Your task to perform on an android device: Open settings on Google Maps Image 0: 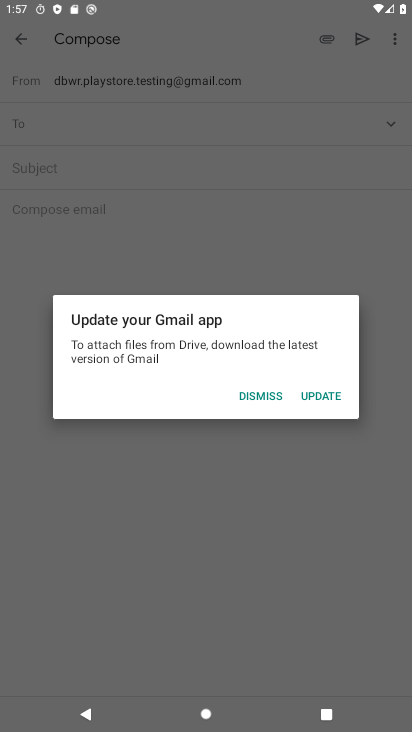
Step 0: press home button
Your task to perform on an android device: Open settings on Google Maps Image 1: 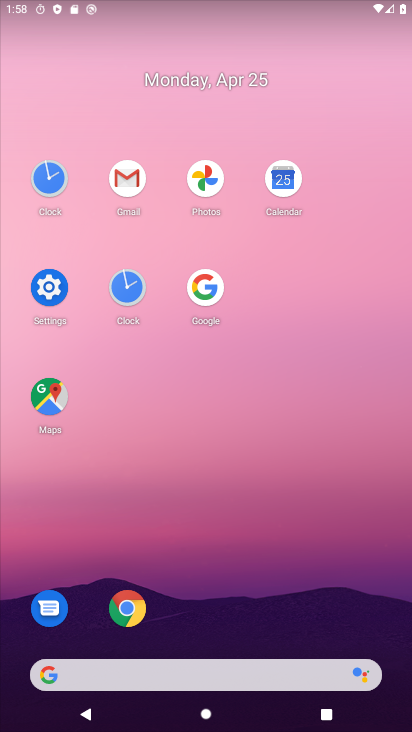
Step 1: click (46, 394)
Your task to perform on an android device: Open settings on Google Maps Image 2: 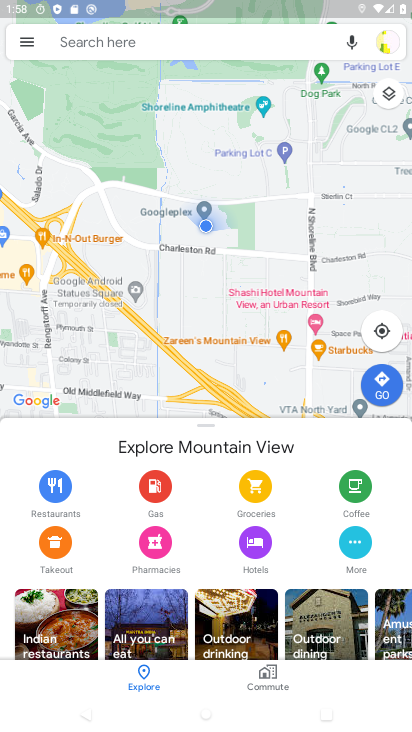
Step 2: click (35, 42)
Your task to perform on an android device: Open settings on Google Maps Image 3: 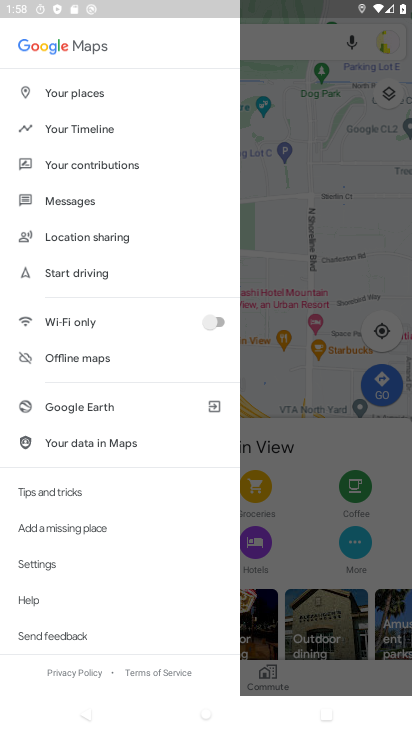
Step 3: click (69, 561)
Your task to perform on an android device: Open settings on Google Maps Image 4: 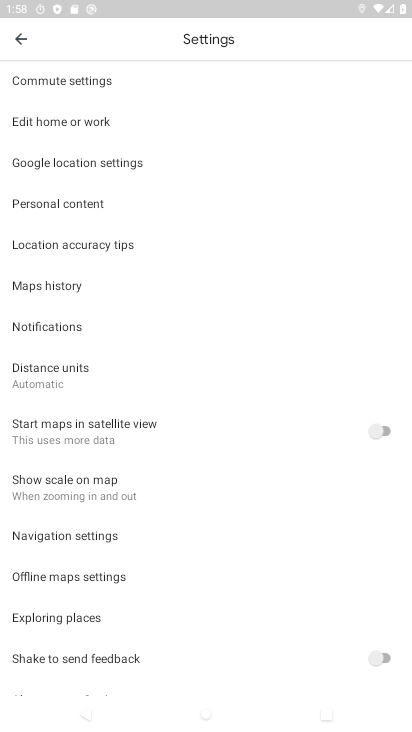
Step 4: task complete